Your task to perform on an android device: turn on showing notifications on the lock screen Image 0: 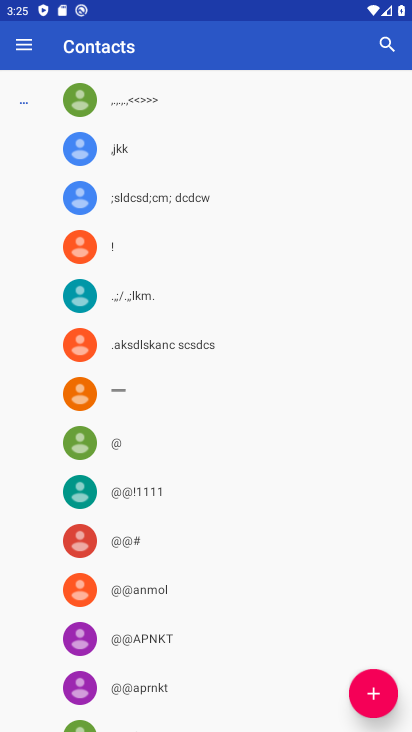
Step 0: press home button
Your task to perform on an android device: turn on showing notifications on the lock screen Image 1: 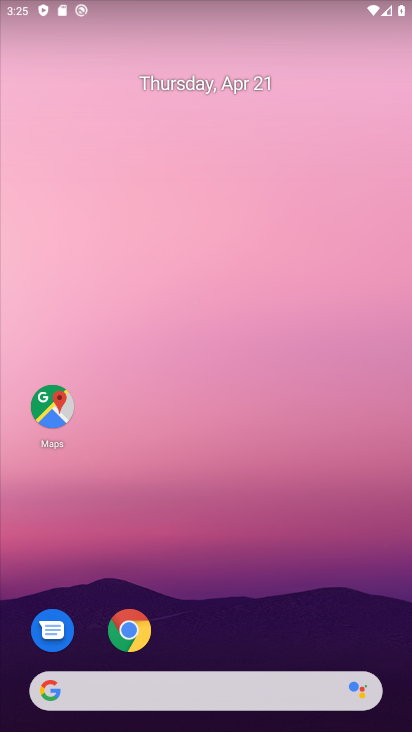
Step 1: drag from (206, 655) to (232, 201)
Your task to perform on an android device: turn on showing notifications on the lock screen Image 2: 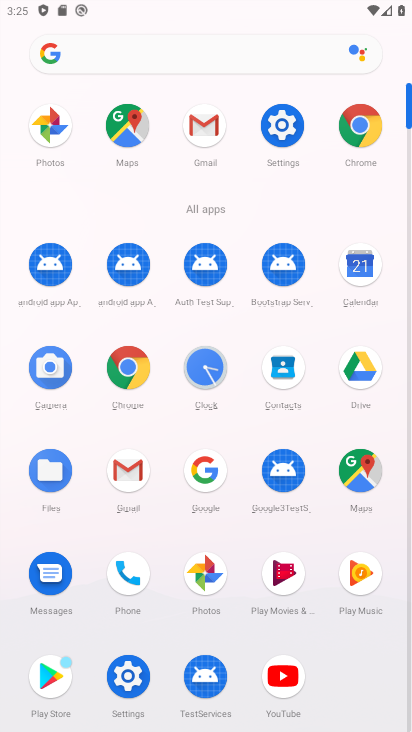
Step 2: click (289, 134)
Your task to perform on an android device: turn on showing notifications on the lock screen Image 3: 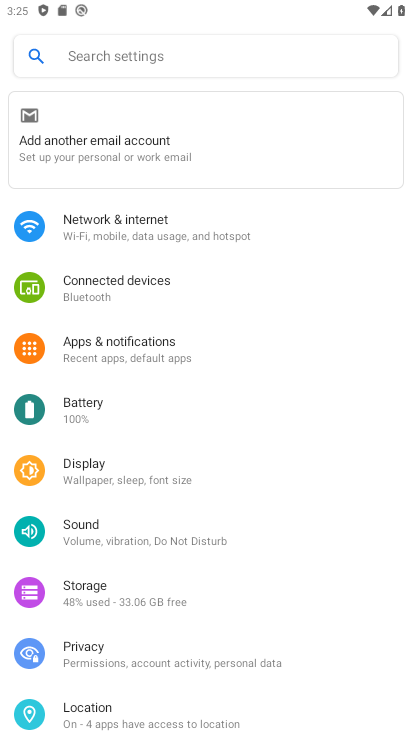
Step 3: click (115, 354)
Your task to perform on an android device: turn on showing notifications on the lock screen Image 4: 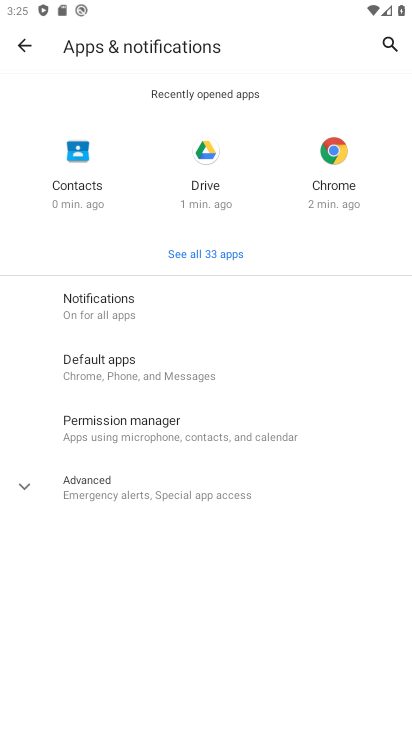
Step 4: click (111, 308)
Your task to perform on an android device: turn on showing notifications on the lock screen Image 5: 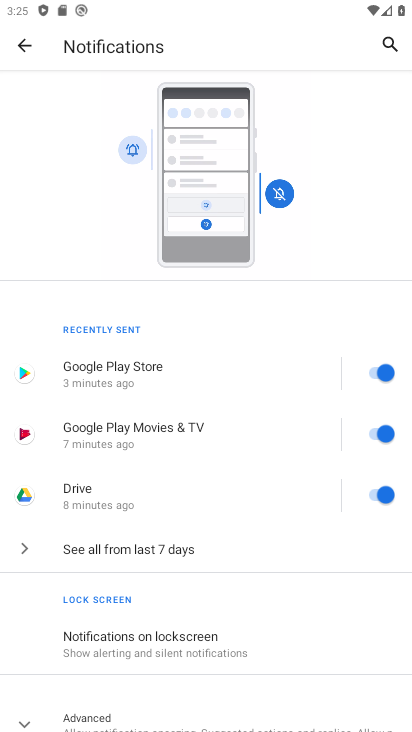
Step 5: drag from (179, 666) to (208, 325)
Your task to perform on an android device: turn on showing notifications on the lock screen Image 6: 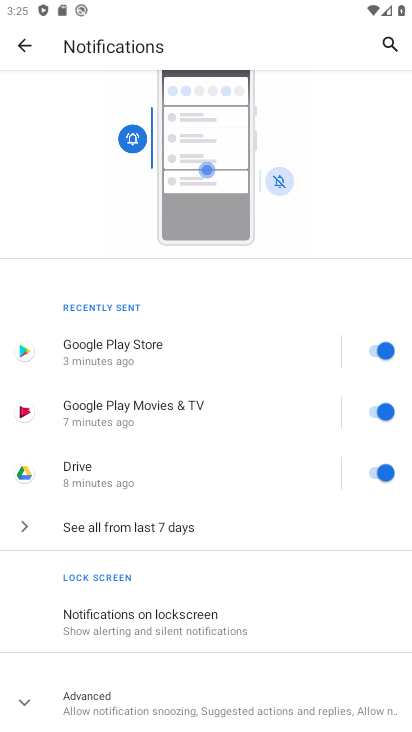
Step 6: click (113, 633)
Your task to perform on an android device: turn on showing notifications on the lock screen Image 7: 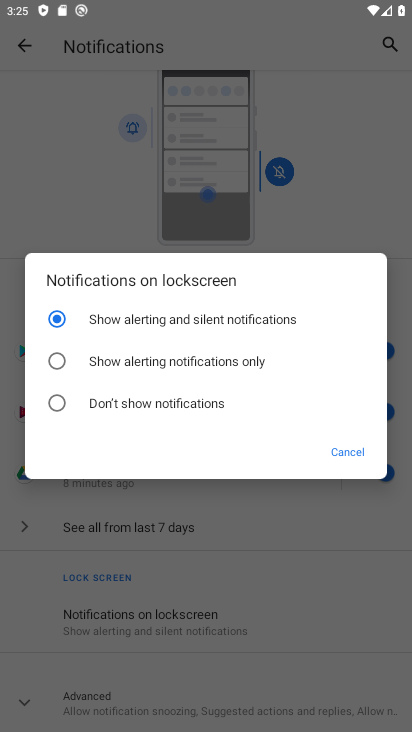
Step 7: task complete